Your task to perform on an android device: turn off priority inbox in the gmail app Image 0: 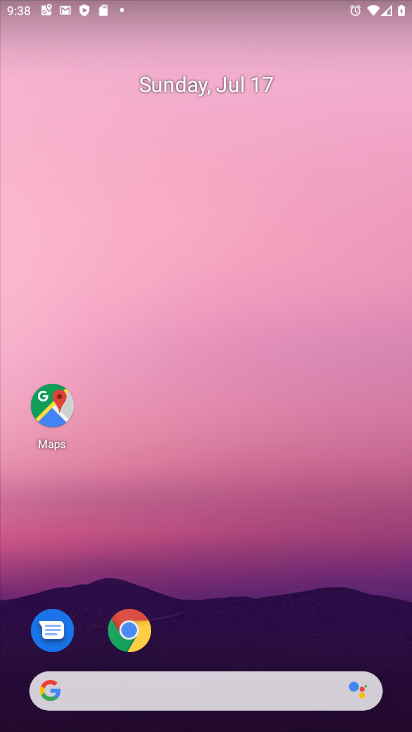
Step 0: drag from (345, 590) to (344, 92)
Your task to perform on an android device: turn off priority inbox in the gmail app Image 1: 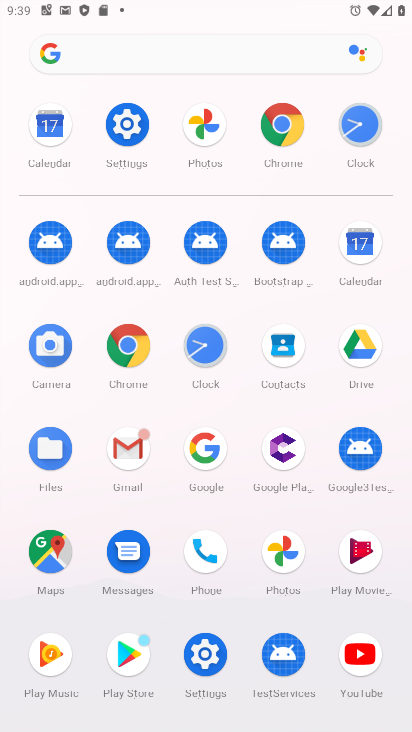
Step 1: click (135, 449)
Your task to perform on an android device: turn off priority inbox in the gmail app Image 2: 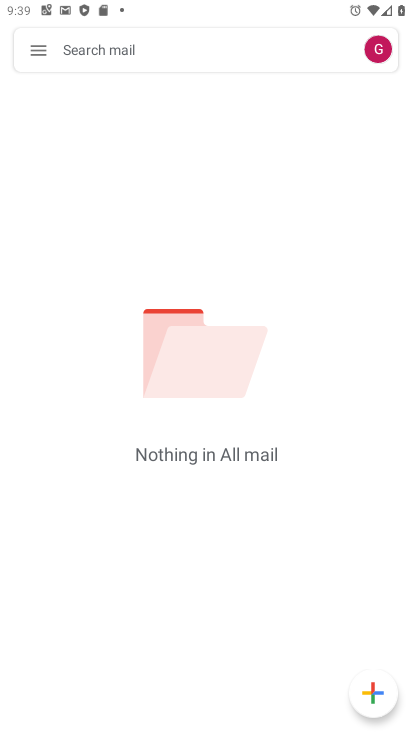
Step 2: click (38, 55)
Your task to perform on an android device: turn off priority inbox in the gmail app Image 3: 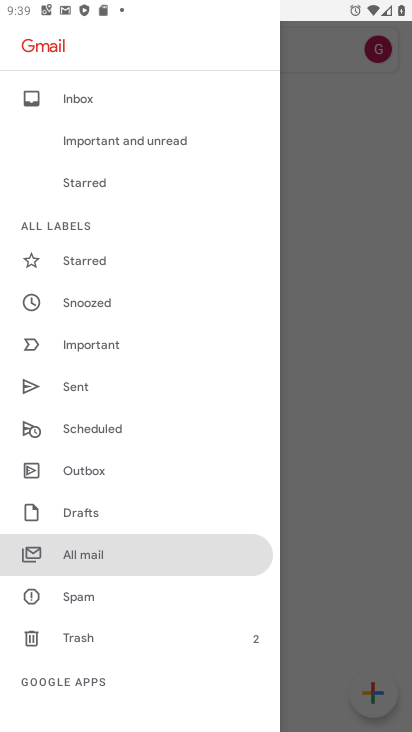
Step 3: drag from (210, 379) to (213, 287)
Your task to perform on an android device: turn off priority inbox in the gmail app Image 4: 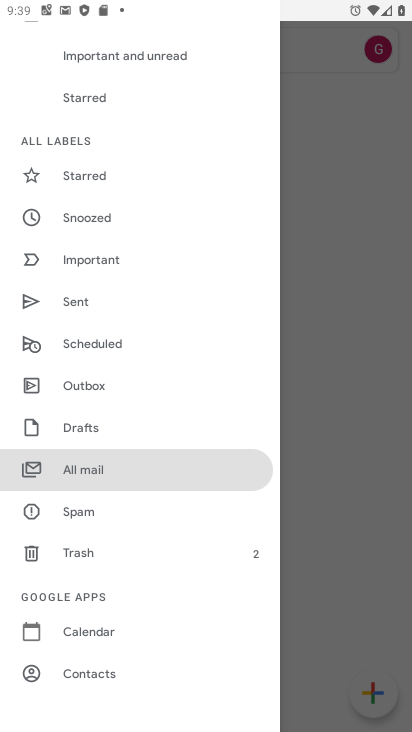
Step 4: drag from (187, 465) to (185, 355)
Your task to perform on an android device: turn off priority inbox in the gmail app Image 5: 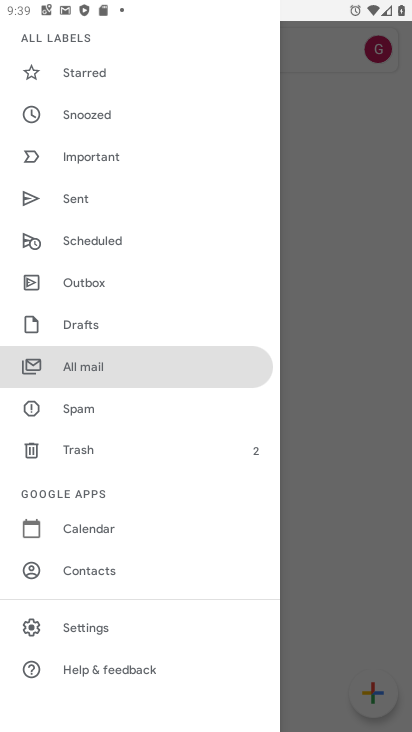
Step 5: drag from (181, 496) to (182, 375)
Your task to perform on an android device: turn off priority inbox in the gmail app Image 6: 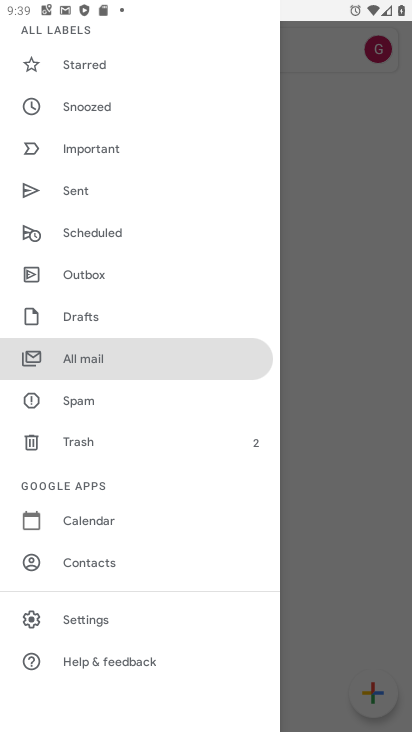
Step 6: click (141, 609)
Your task to perform on an android device: turn off priority inbox in the gmail app Image 7: 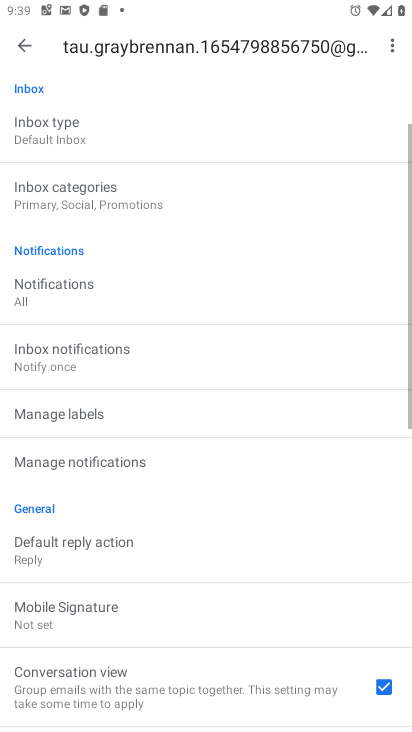
Step 7: drag from (234, 515) to (240, 409)
Your task to perform on an android device: turn off priority inbox in the gmail app Image 8: 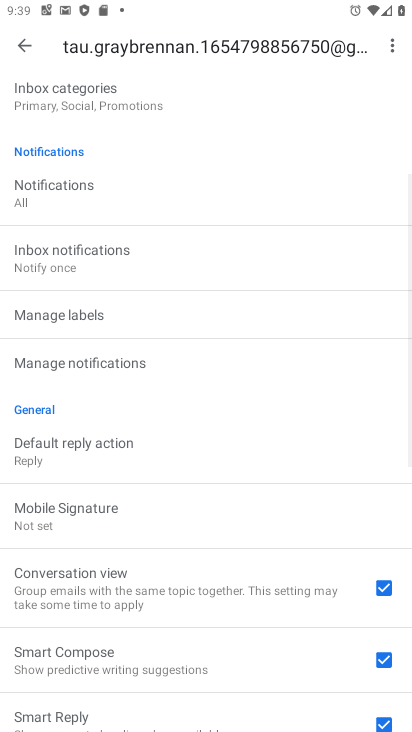
Step 8: drag from (246, 520) to (244, 272)
Your task to perform on an android device: turn off priority inbox in the gmail app Image 9: 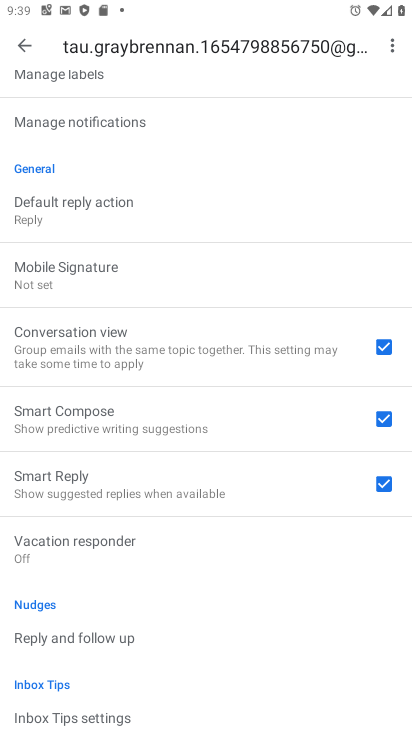
Step 9: drag from (234, 506) to (256, 367)
Your task to perform on an android device: turn off priority inbox in the gmail app Image 10: 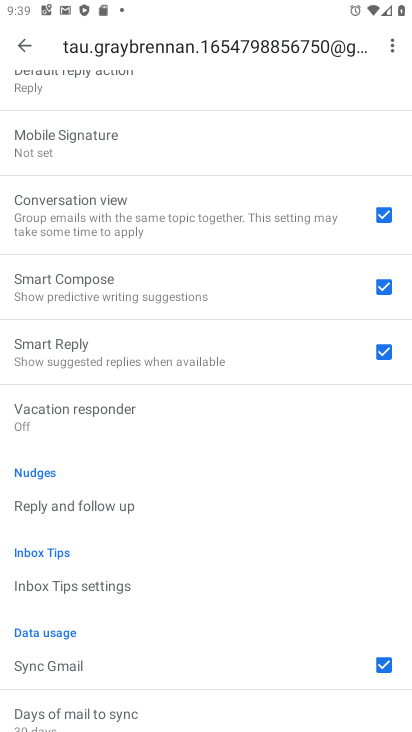
Step 10: drag from (313, 545) to (312, 357)
Your task to perform on an android device: turn off priority inbox in the gmail app Image 11: 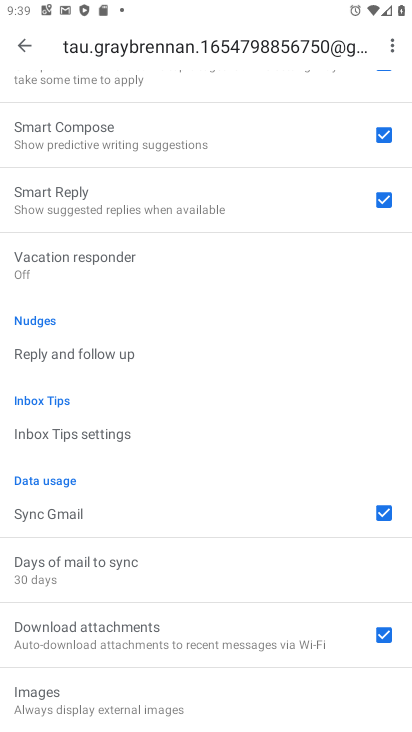
Step 11: drag from (300, 215) to (300, 351)
Your task to perform on an android device: turn off priority inbox in the gmail app Image 12: 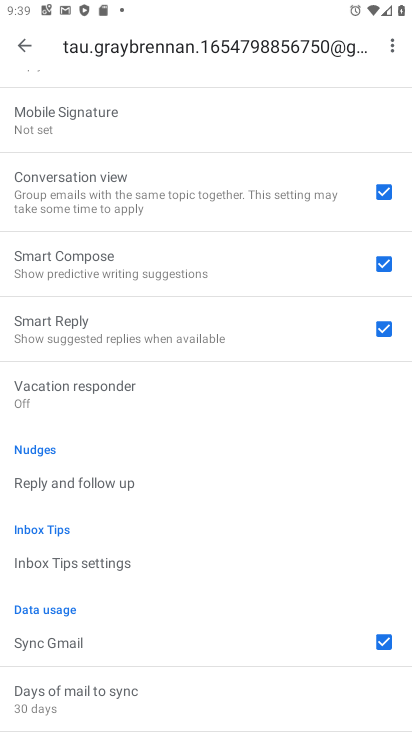
Step 12: drag from (284, 206) to (288, 335)
Your task to perform on an android device: turn off priority inbox in the gmail app Image 13: 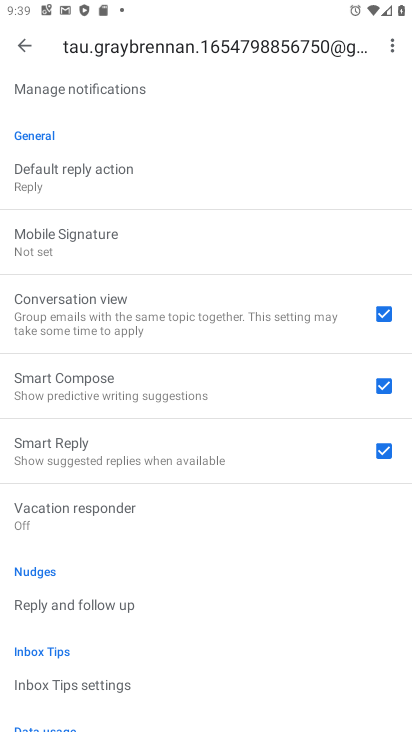
Step 13: drag from (287, 171) to (288, 335)
Your task to perform on an android device: turn off priority inbox in the gmail app Image 14: 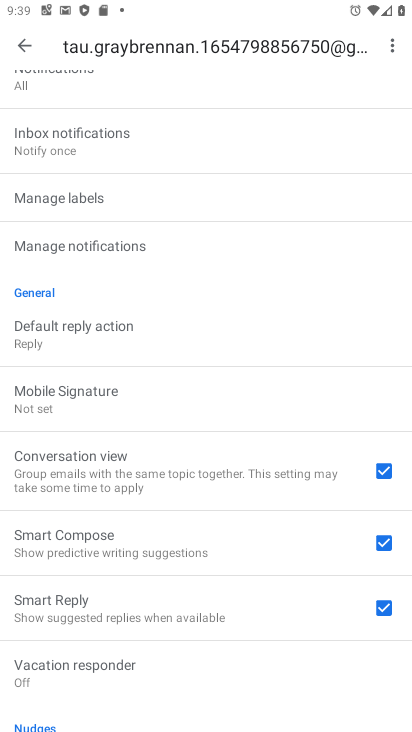
Step 14: drag from (262, 171) to (261, 333)
Your task to perform on an android device: turn off priority inbox in the gmail app Image 15: 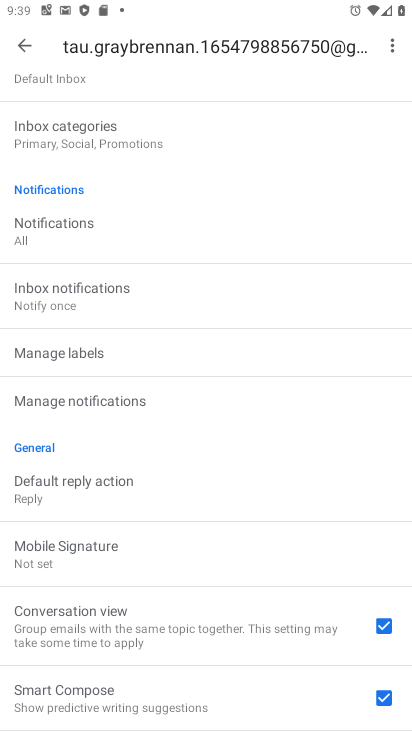
Step 15: drag from (257, 178) to (262, 363)
Your task to perform on an android device: turn off priority inbox in the gmail app Image 16: 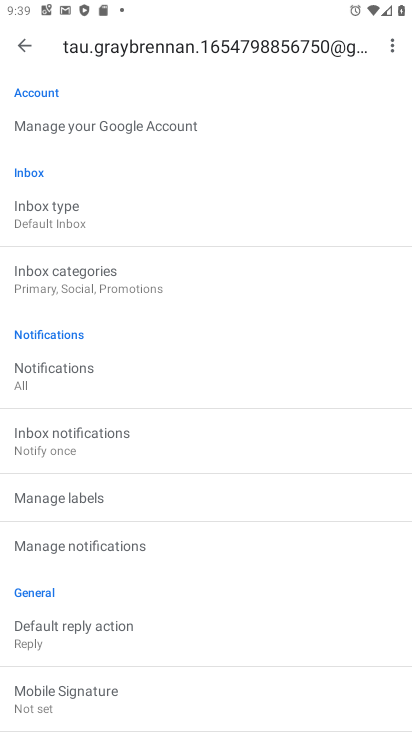
Step 16: drag from (248, 174) to (252, 329)
Your task to perform on an android device: turn off priority inbox in the gmail app Image 17: 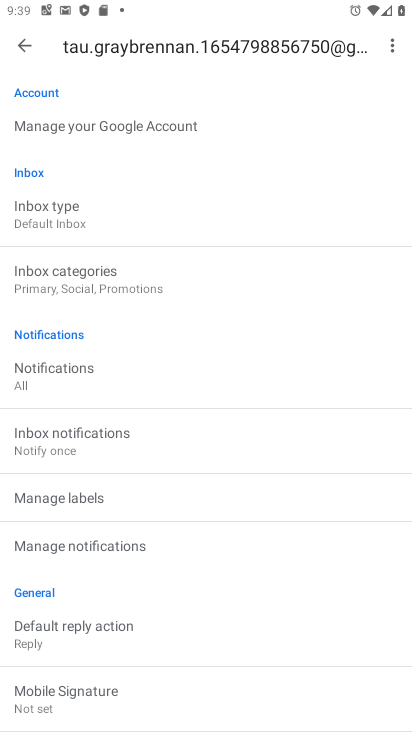
Step 17: click (83, 208)
Your task to perform on an android device: turn off priority inbox in the gmail app Image 18: 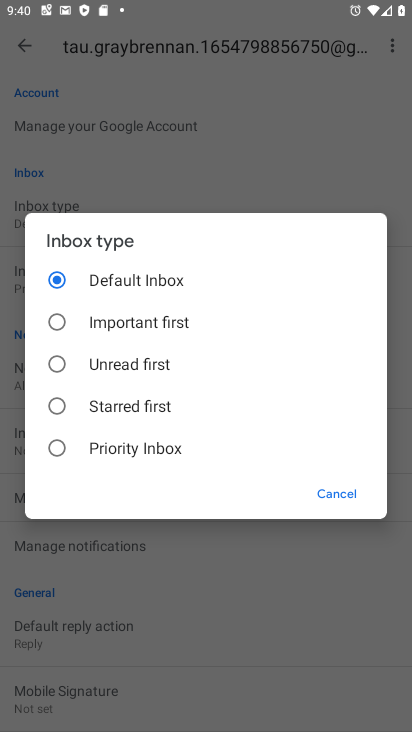
Step 18: task complete